Your task to perform on an android device: Open Wikipedia Image 0: 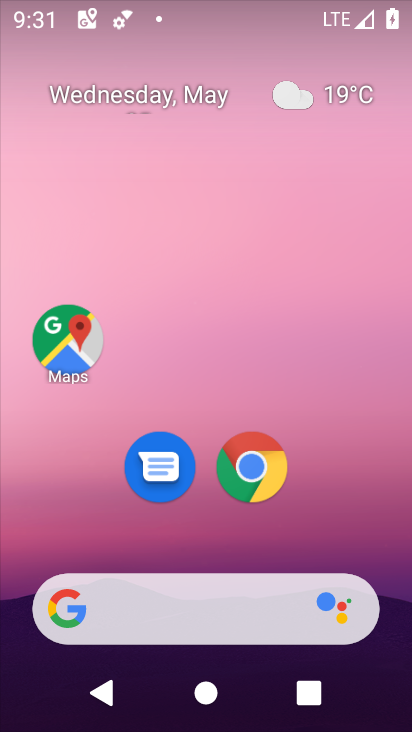
Step 0: click (252, 466)
Your task to perform on an android device: Open Wikipedia Image 1: 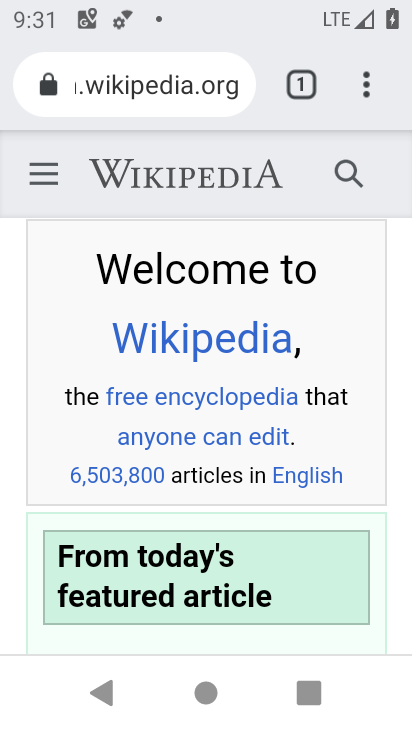
Step 1: task complete